Your task to perform on an android device: Open Maps and search for coffee Image 0: 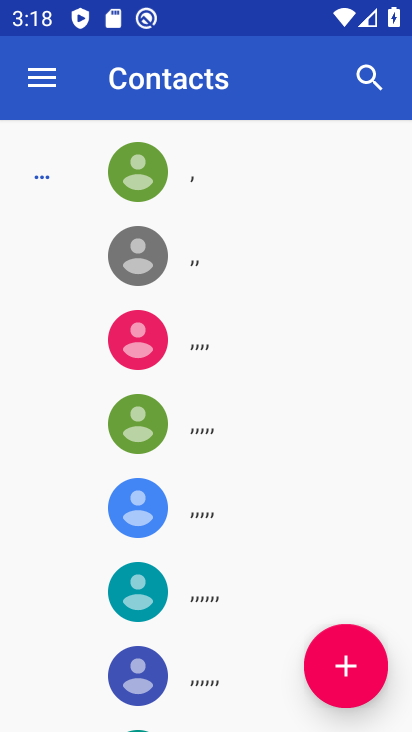
Step 0: press home button
Your task to perform on an android device: Open Maps and search for coffee Image 1: 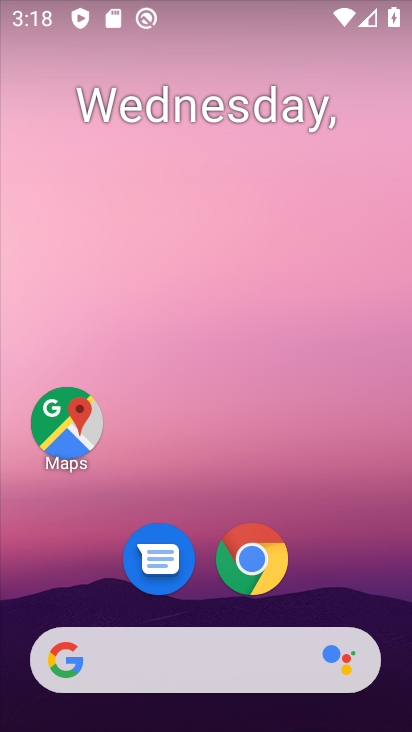
Step 1: click (85, 442)
Your task to perform on an android device: Open Maps and search for coffee Image 2: 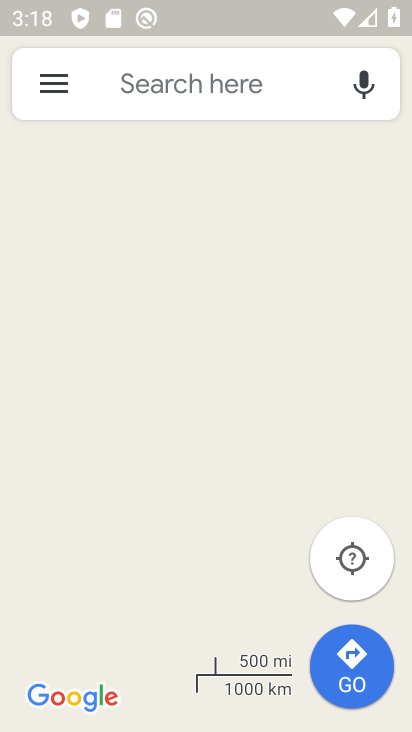
Step 2: click (211, 95)
Your task to perform on an android device: Open Maps and search for coffee Image 3: 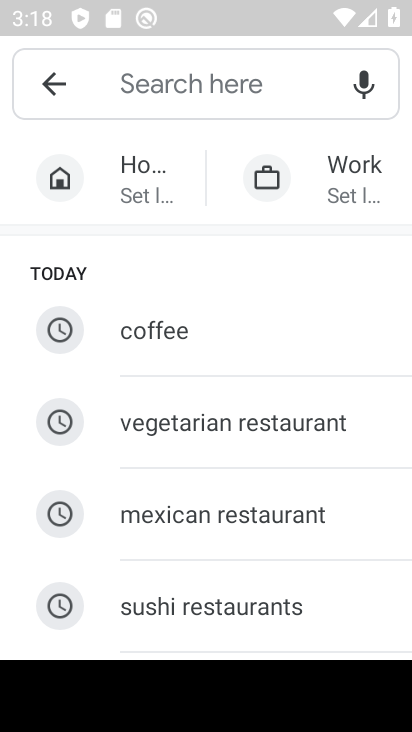
Step 3: type "Coffee"
Your task to perform on an android device: Open Maps and search for coffee Image 4: 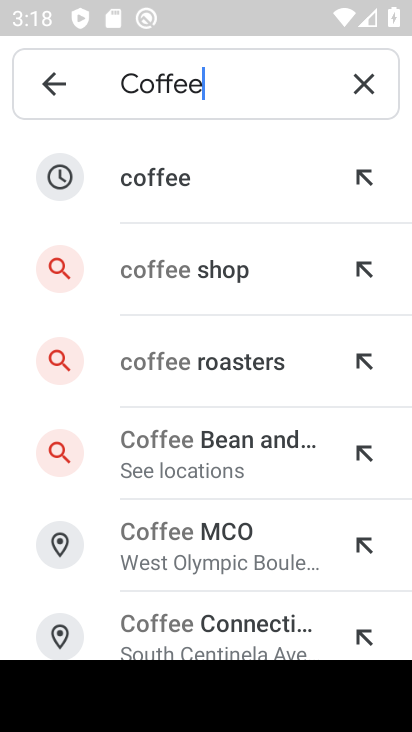
Step 4: click (232, 194)
Your task to perform on an android device: Open Maps and search for coffee Image 5: 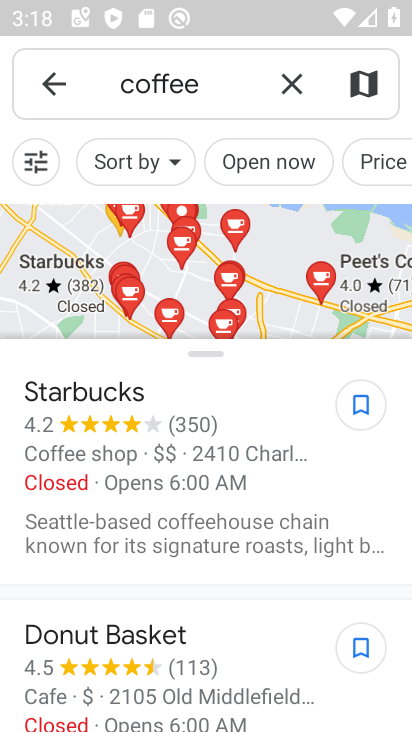
Step 5: task complete